Your task to perform on an android device: Is it going to rain today? Image 0: 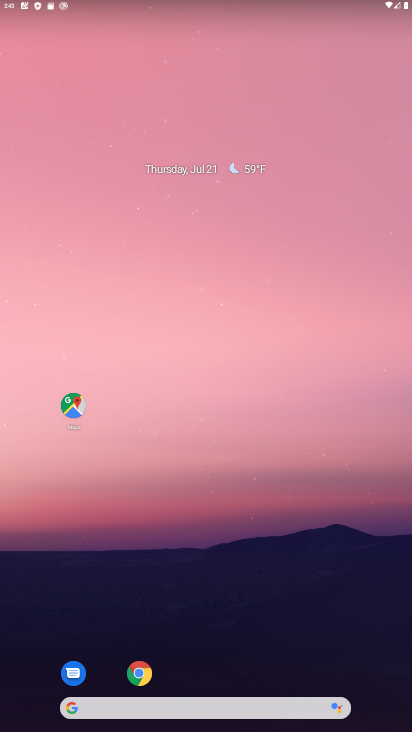
Step 0: click (240, 169)
Your task to perform on an android device: Is it going to rain today? Image 1: 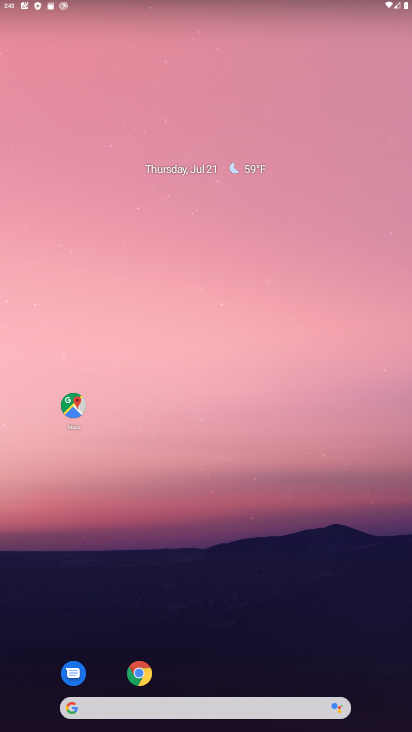
Step 1: click (139, 705)
Your task to perform on an android device: Is it going to rain today? Image 2: 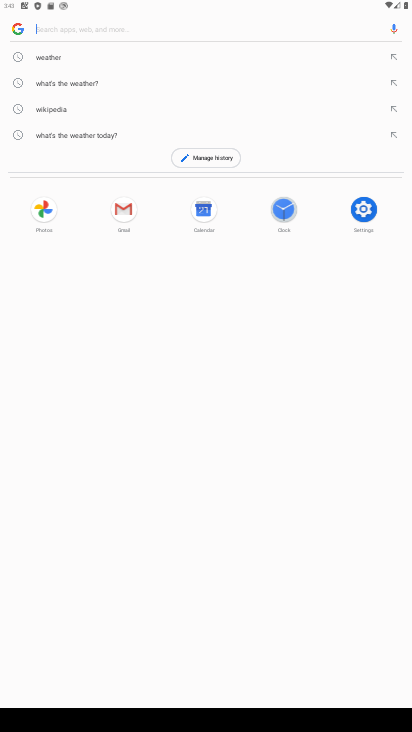
Step 2: click (51, 52)
Your task to perform on an android device: Is it going to rain today? Image 3: 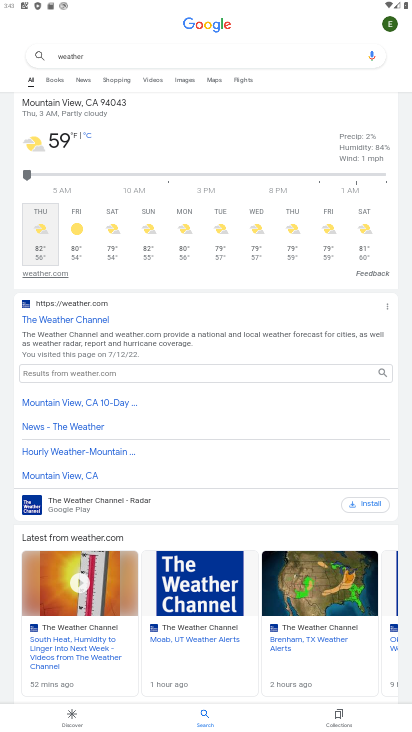
Step 3: task complete